Your task to perform on an android device: Show the shopping cart on amazon. Search for "usb-c to usb-a" on amazon, select the first entry, and add it to the cart. Image 0: 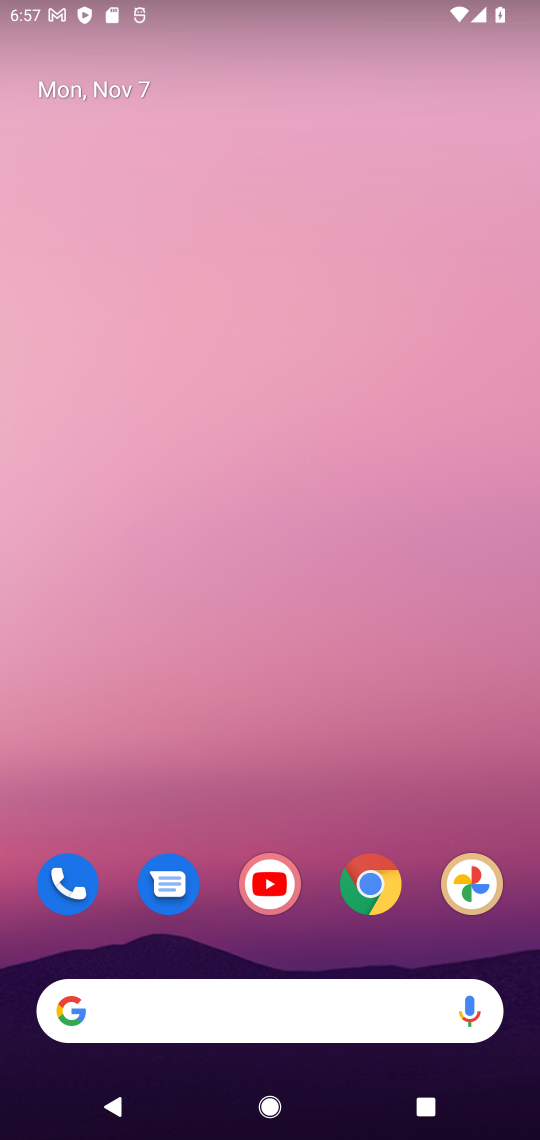
Step 0: click (361, 888)
Your task to perform on an android device: Show the shopping cart on amazon. Search for "usb-c to usb-a" on amazon, select the first entry, and add it to the cart. Image 1: 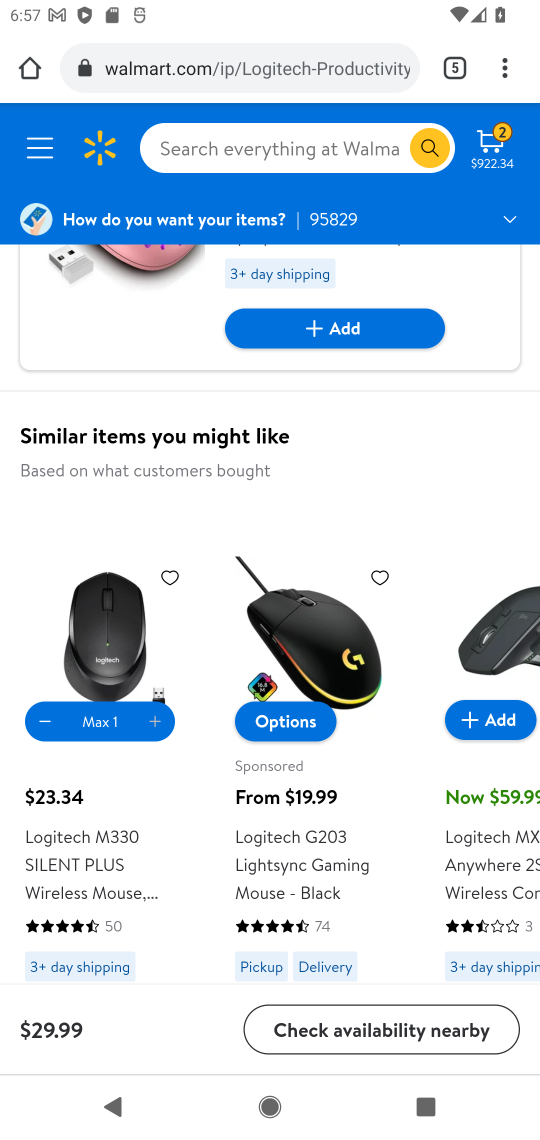
Step 1: click (454, 60)
Your task to perform on an android device: Show the shopping cart on amazon. Search for "usb-c to usb-a" on amazon, select the first entry, and add it to the cart. Image 2: 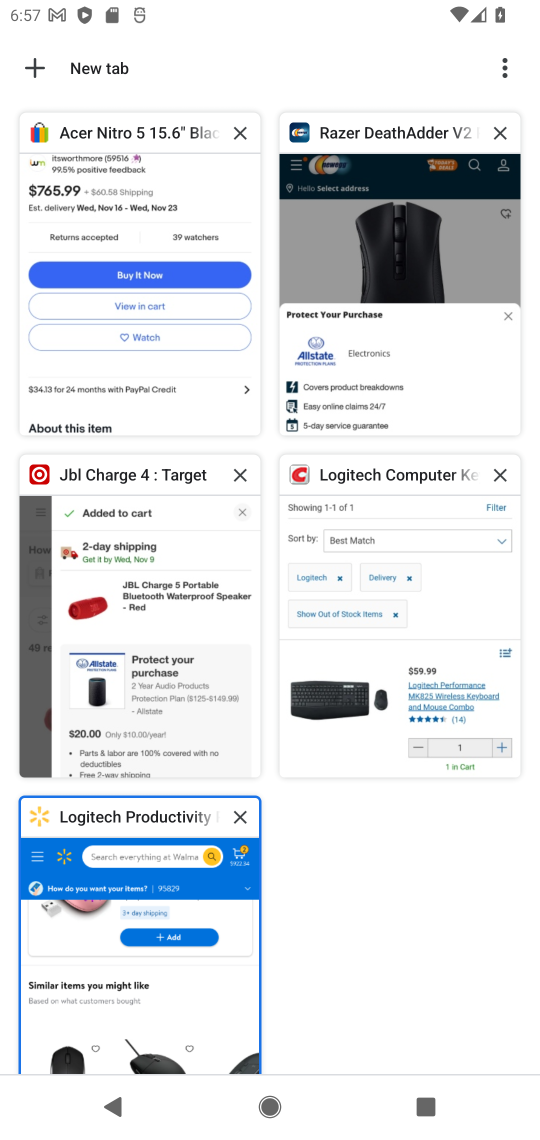
Step 2: click (34, 59)
Your task to perform on an android device: Show the shopping cart on amazon. Search for "usb-c to usb-a" on amazon, select the first entry, and add it to the cart. Image 3: 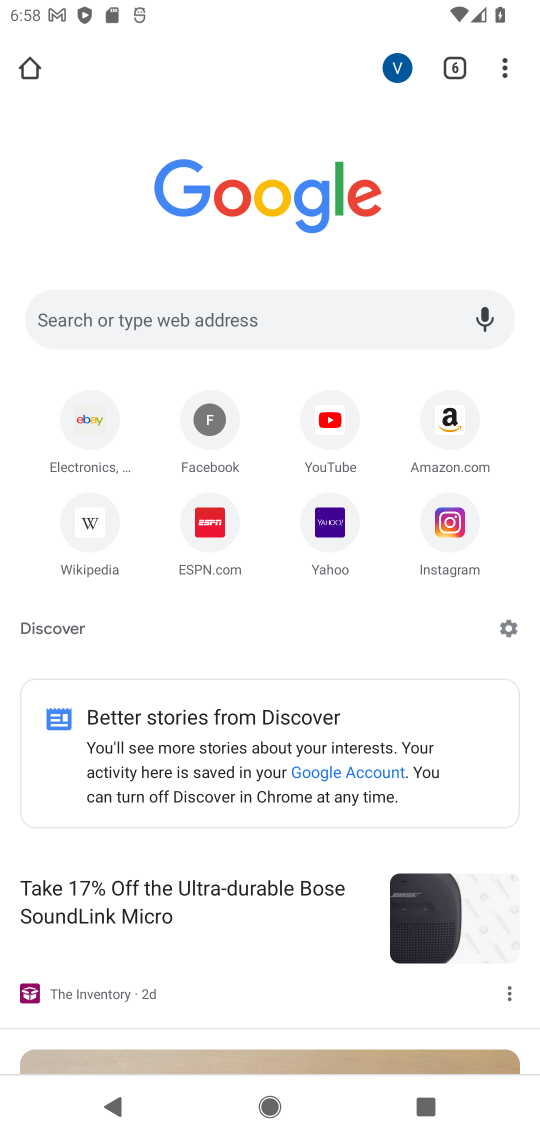
Step 3: type "amazon"
Your task to perform on an android device: Show the shopping cart on amazon. Search for "usb-c to usb-a" on amazon, select the first entry, and add it to the cart. Image 4: 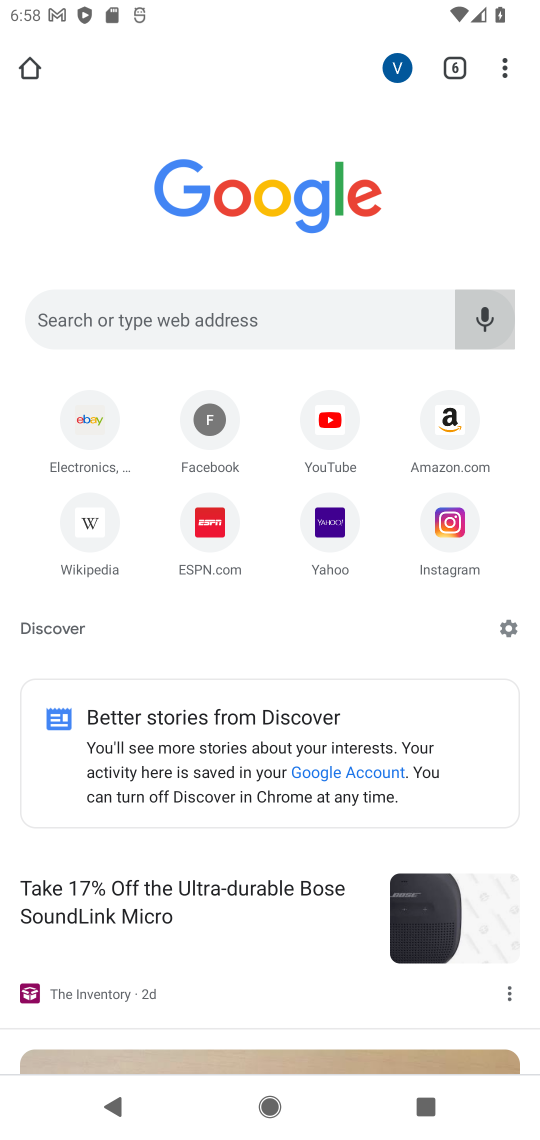
Step 4: click (182, 308)
Your task to perform on an android device: Show the shopping cart on amazon. Search for "usb-c to usb-a" on amazon, select the first entry, and add it to the cart. Image 5: 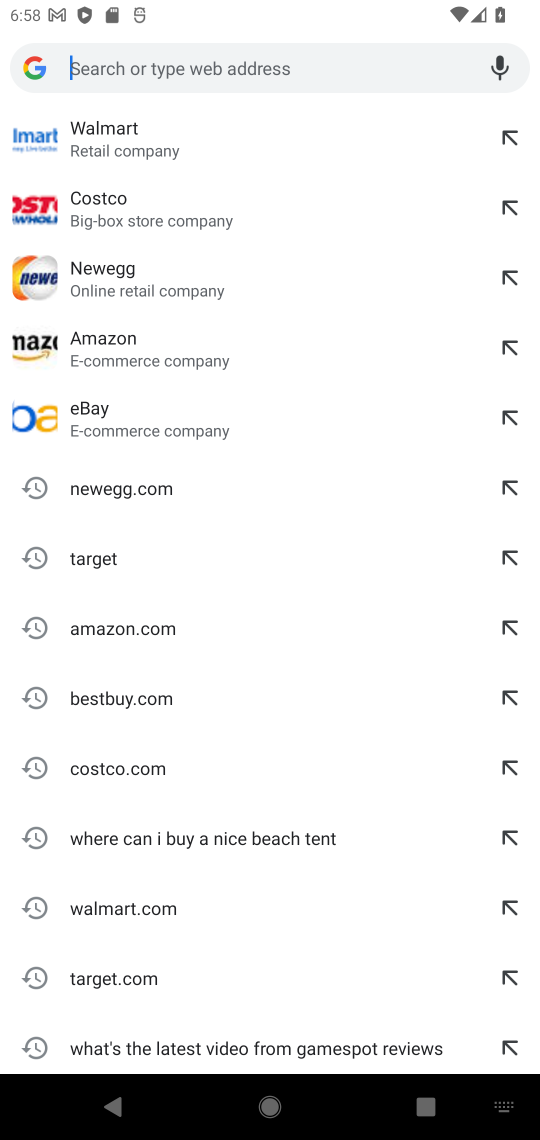
Step 5: click (100, 630)
Your task to perform on an android device: Show the shopping cart on amazon. Search for "usb-c to usb-a" on amazon, select the first entry, and add it to the cart. Image 6: 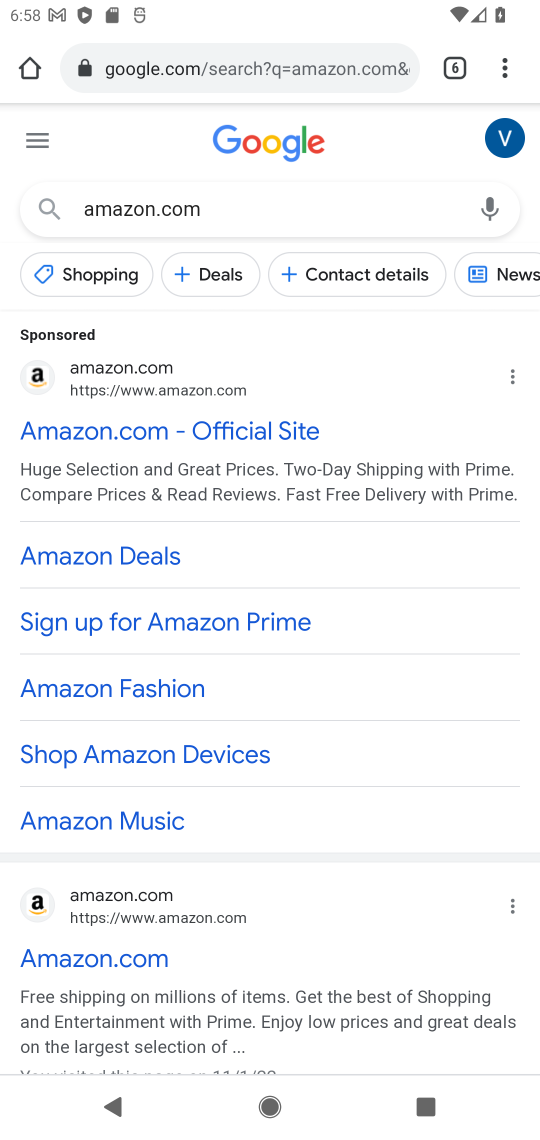
Step 6: drag from (279, 922) to (289, 384)
Your task to perform on an android device: Show the shopping cart on amazon. Search for "usb-c to usb-a" on amazon, select the first entry, and add it to the cart. Image 7: 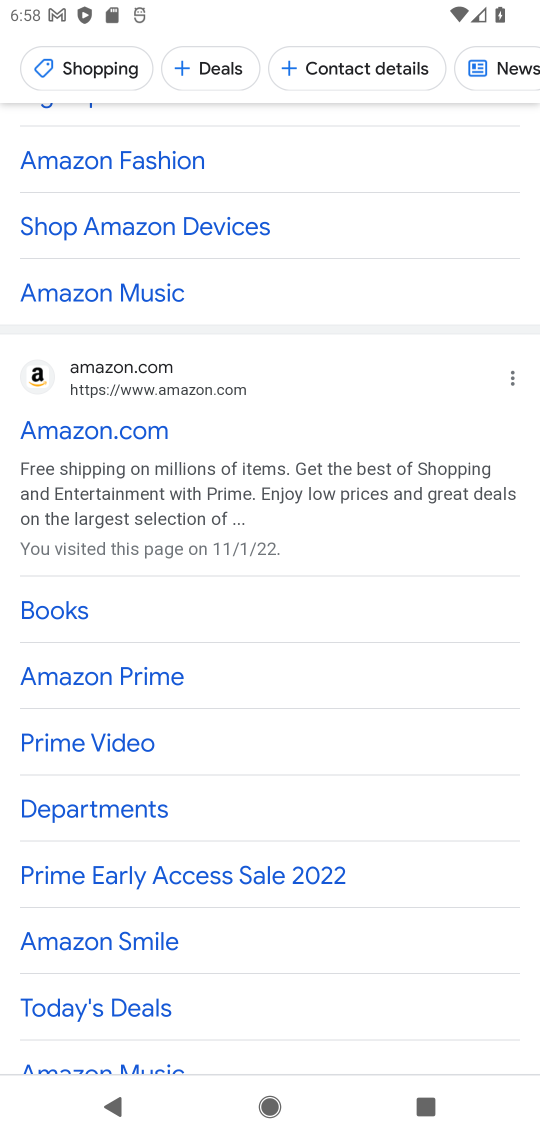
Step 7: click (107, 427)
Your task to perform on an android device: Show the shopping cart on amazon. Search for "usb-c to usb-a" on amazon, select the first entry, and add it to the cart. Image 8: 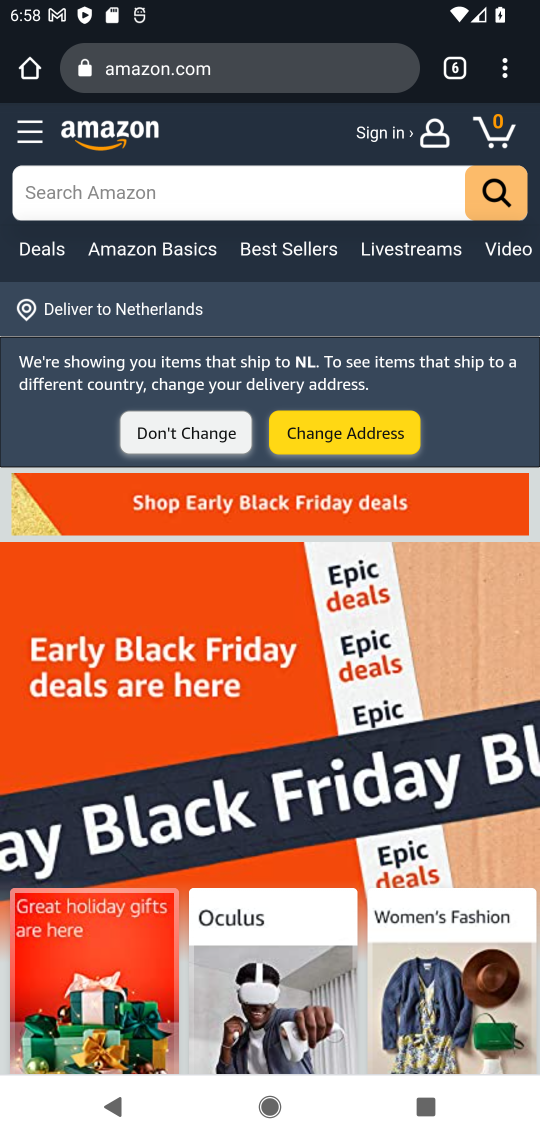
Step 8: click (131, 185)
Your task to perform on an android device: Show the shopping cart on amazon. Search for "usb-c to usb-a" on amazon, select the first entry, and add it to the cart. Image 9: 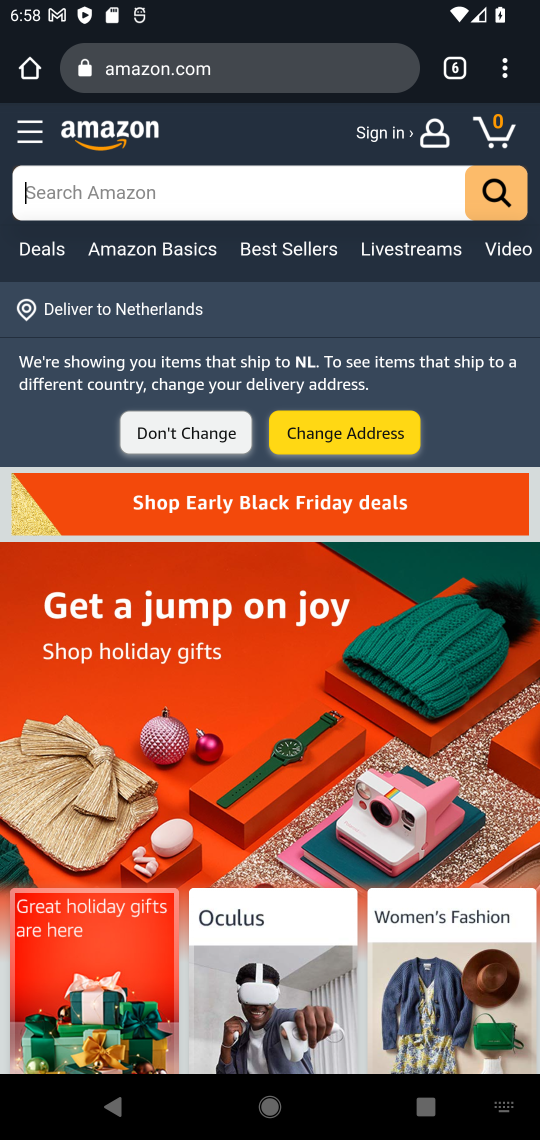
Step 9: type "usb-c to usb-a"
Your task to perform on an android device: Show the shopping cart on amazon. Search for "usb-c to usb-a" on amazon, select the first entry, and add it to the cart. Image 10: 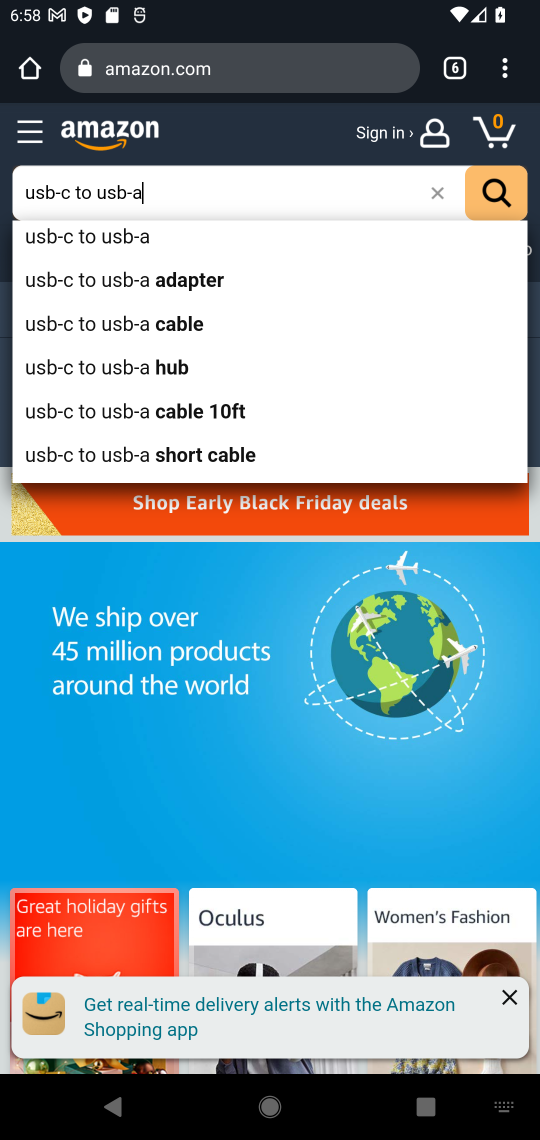
Step 10: click (139, 235)
Your task to perform on an android device: Show the shopping cart on amazon. Search for "usb-c to usb-a" on amazon, select the first entry, and add it to the cart. Image 11: 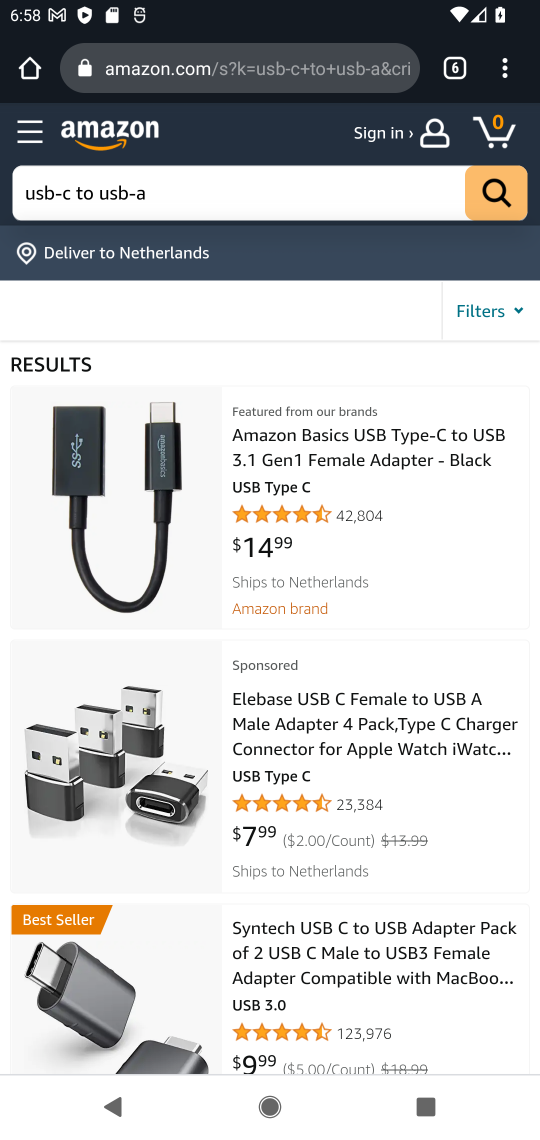
Step 11: click (346, 468)
Your task to perform on an android device: Show the shopping cart on amazon. Search for "usb-c to usb-a" on amazon, select the first entry, and add it to the cart. Image 12: 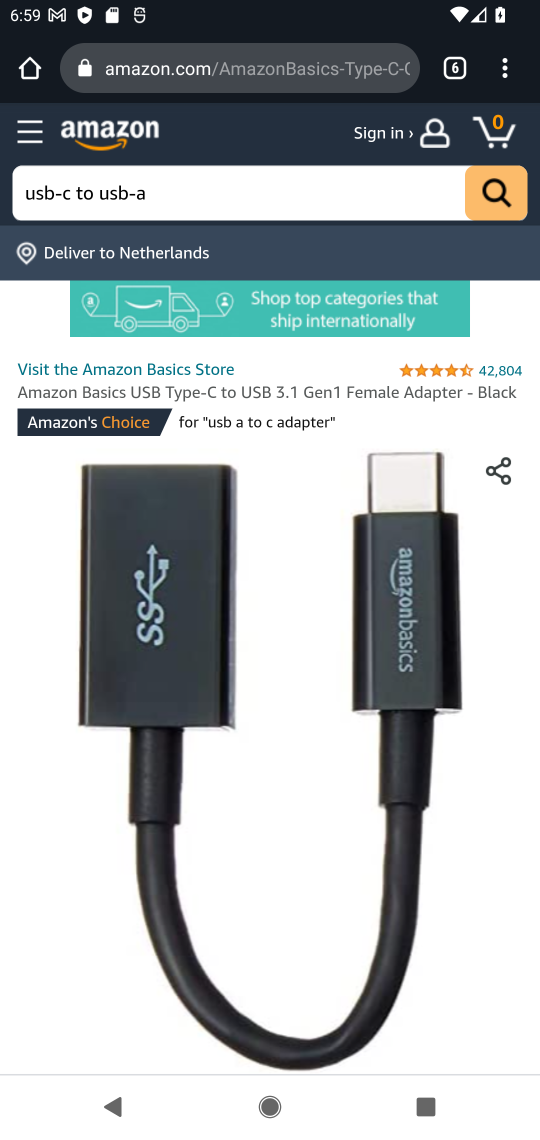
Step 12: drag from (475, 935) to (411, 315)
Your task to perform on an android device: Show the shopping cart on amazon. Search for "usb-c to usb-a" on amazon, select the first entry, and add it to the cart. Image 13: 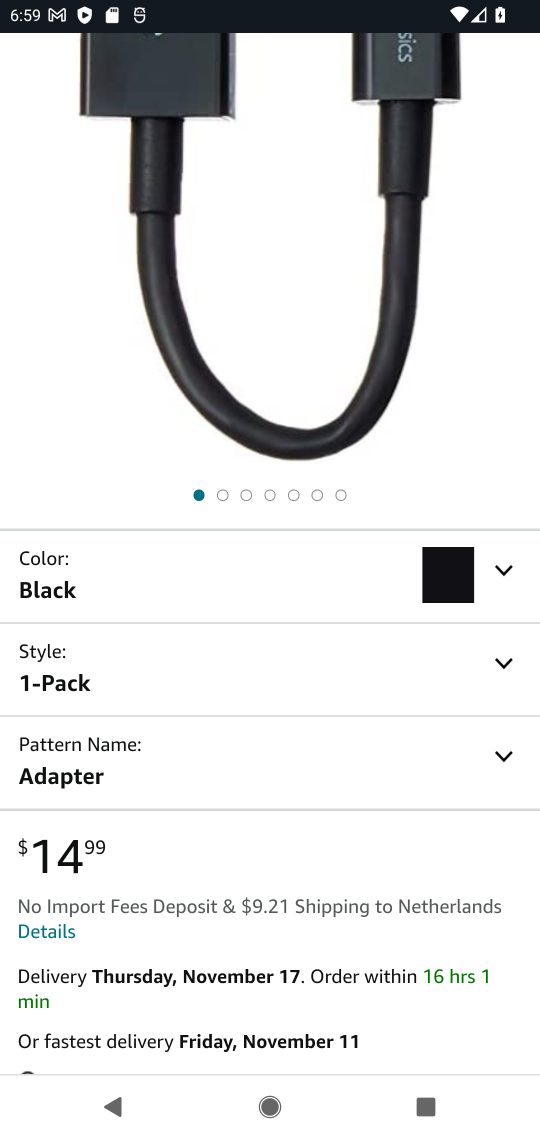
Step 13: drag from (304, 863) to (280, 228)
Your task to perform on an android device: Show the shopping cart on amazon. Search for "usb-c to usb-a" on amazon, select the first entry, and add it to the cart. Image 14: 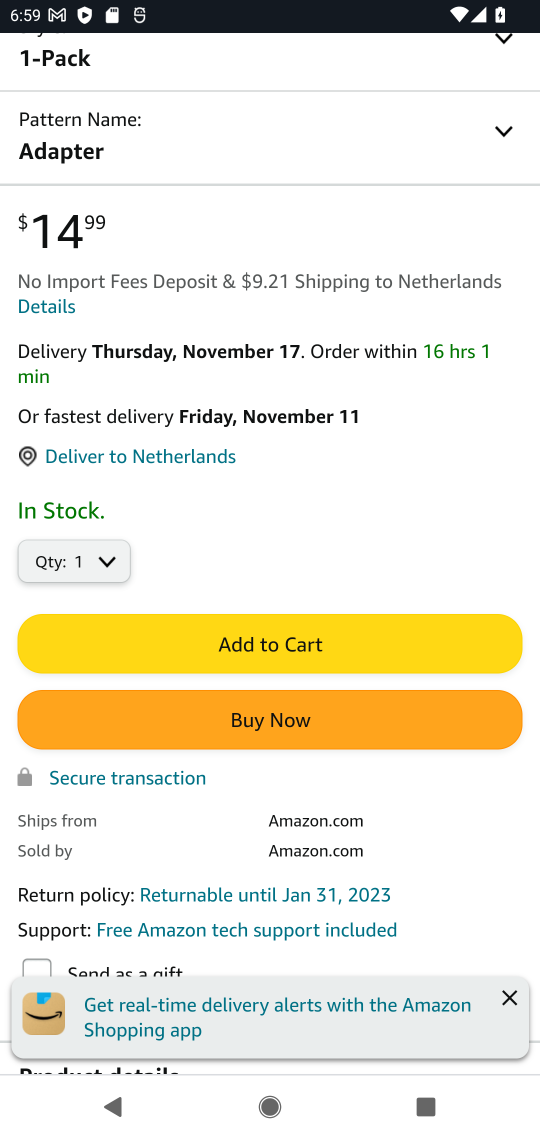
Step 14: click (301, 642)
Your task to perform on an android device: Show the shopping cart on amazon. Search for "usb-c to usb-a" on amazon, select the first entry, and add it to the cart. Image 15: 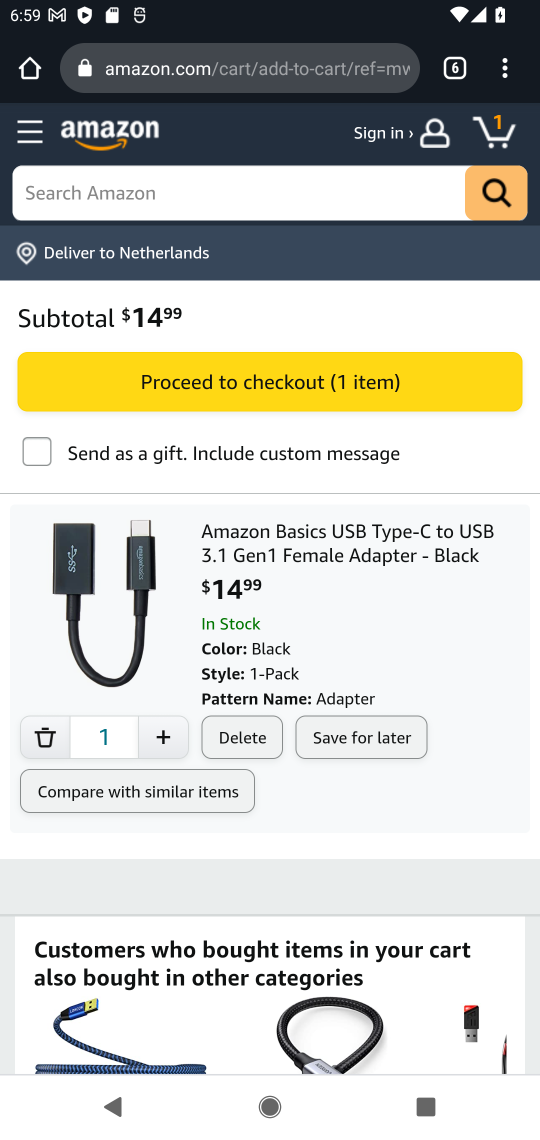
Step 15: task complete